Your task to perform on an android device: Go to Yahoo.com Image 0: 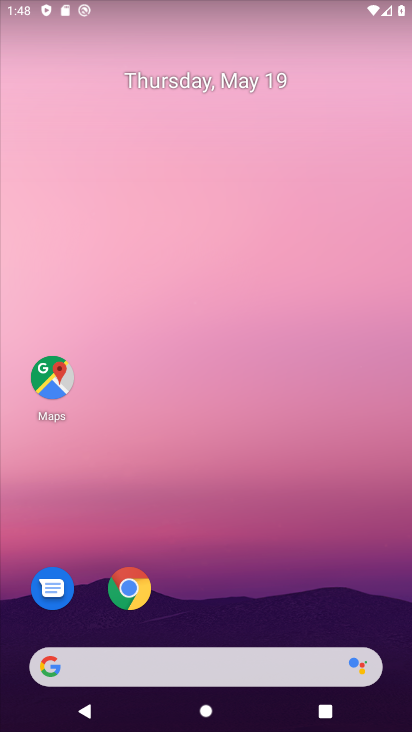
Step 0: click (128, 588)
Your task to perform on an android device: Go to Yahoo.com Image 1: 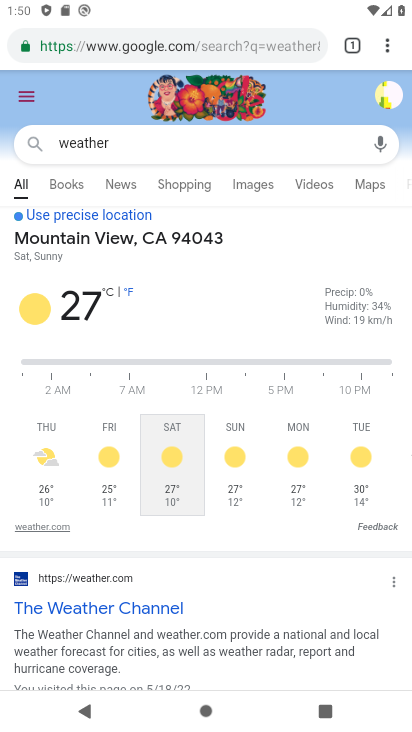
Step 1: click (157, 50)
Your task to perform on an android device: Go to Yahoo.com Image 2: 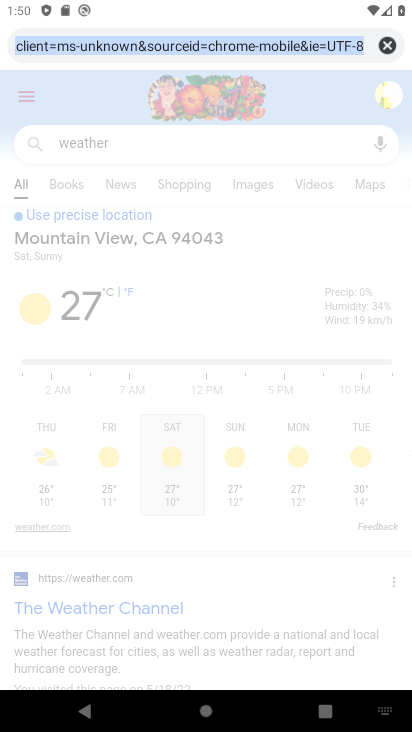
Step 2: type "yahoo.com"
Your task to perform on an android device: Go to Yahoo.com Image 3: 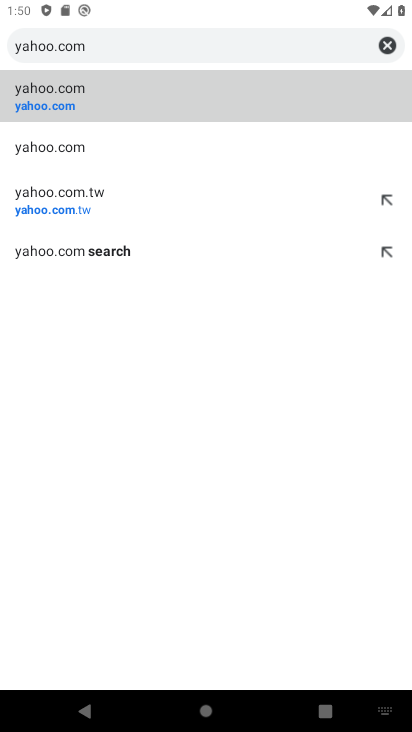
Step 3: click (63, 108)
Your task to perform on an android device: Go to Yahoo.com Image 4: 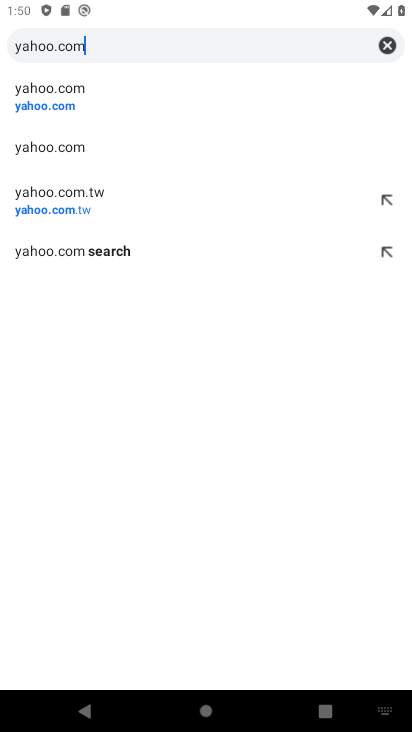
Step 4: click (29, 104)
Your task to perform on an android device: Go to Yahoo.com Image 5: 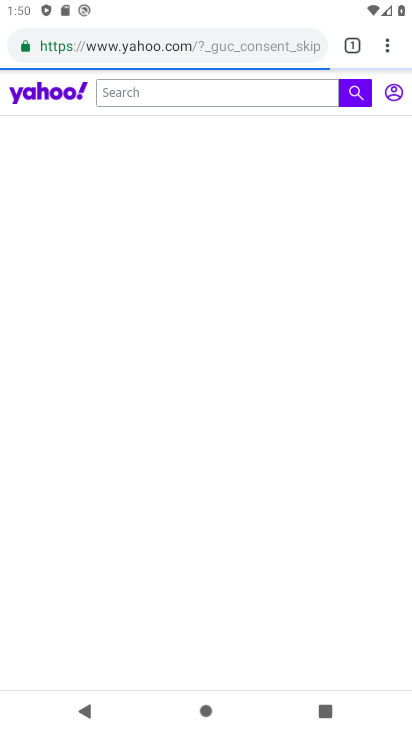
Step 5: task complete